Your task to perform on an android device: turn off data saver in the chrome app Image 0: 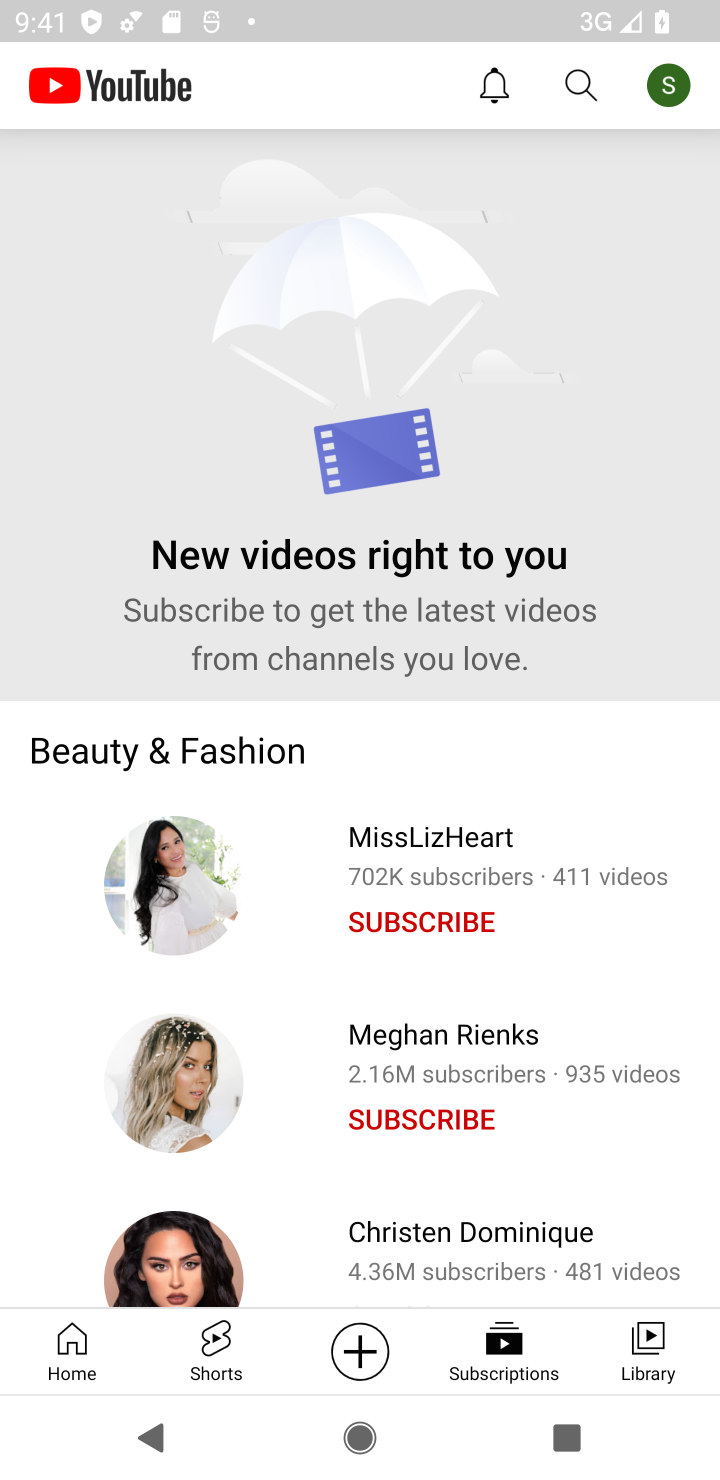
Step 0: press home button
Your task to perform on an android device: turn off data saver in the chrome app Image 1: 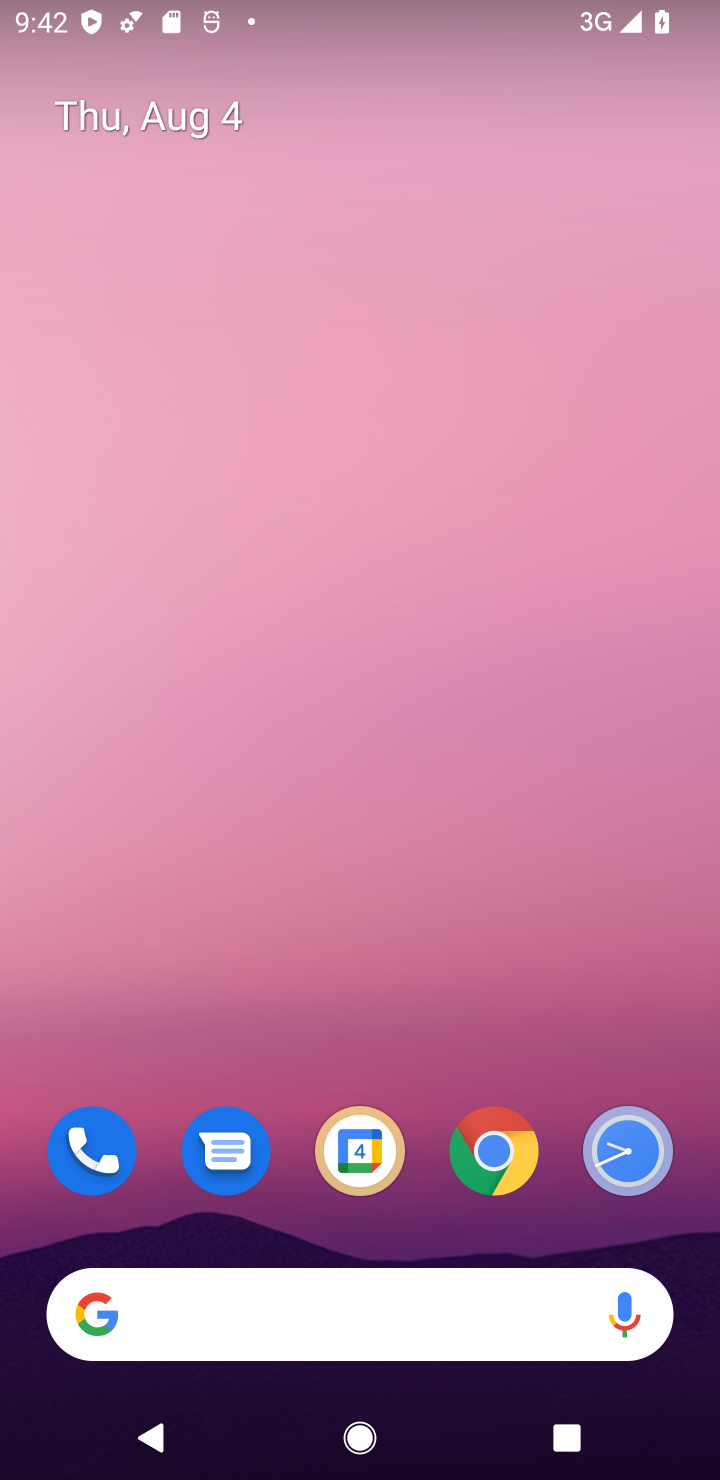
Step 1: click (479, 1138)
Your task to perform on an android device: turn off data saver in the chrome app Image 2: 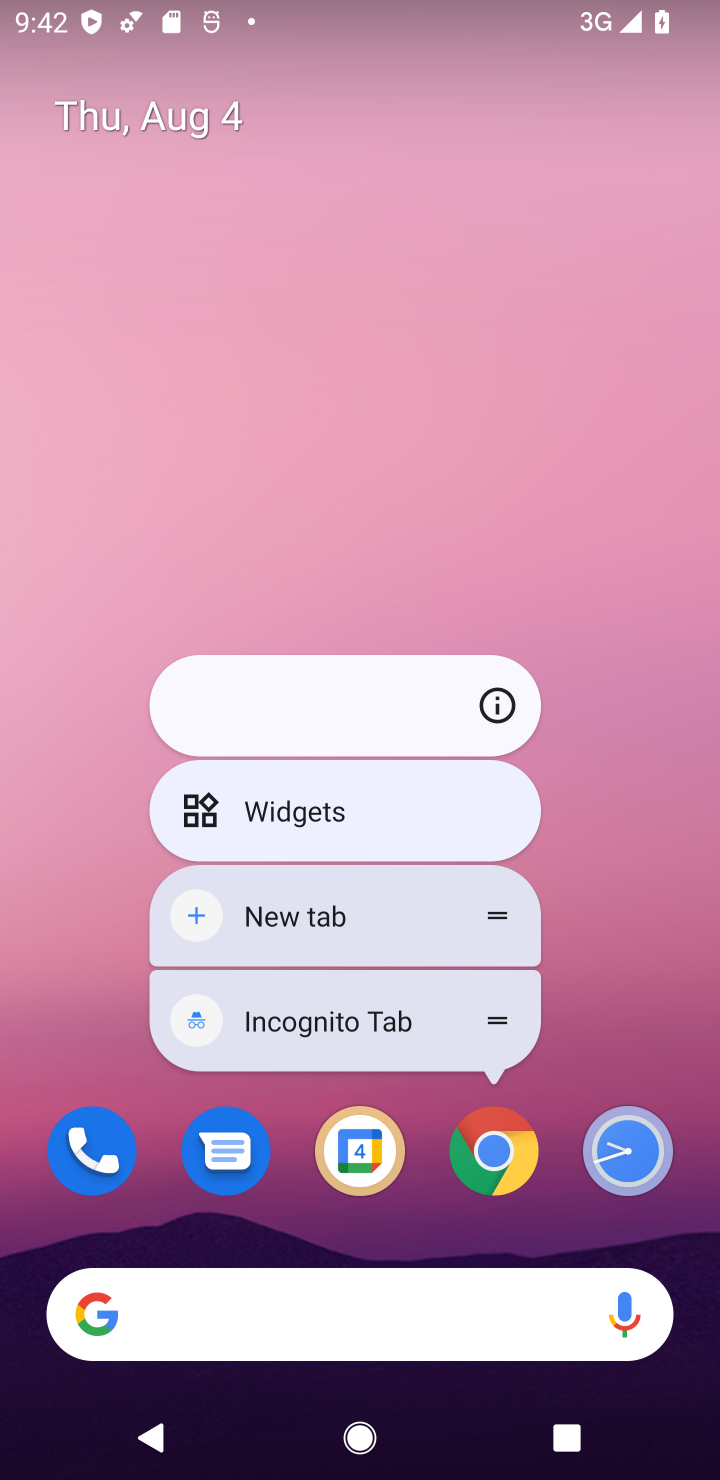
Step 2: click (520, 1146)
Your task to perform on an android device: turn off data saver in the chrome app Image 3: 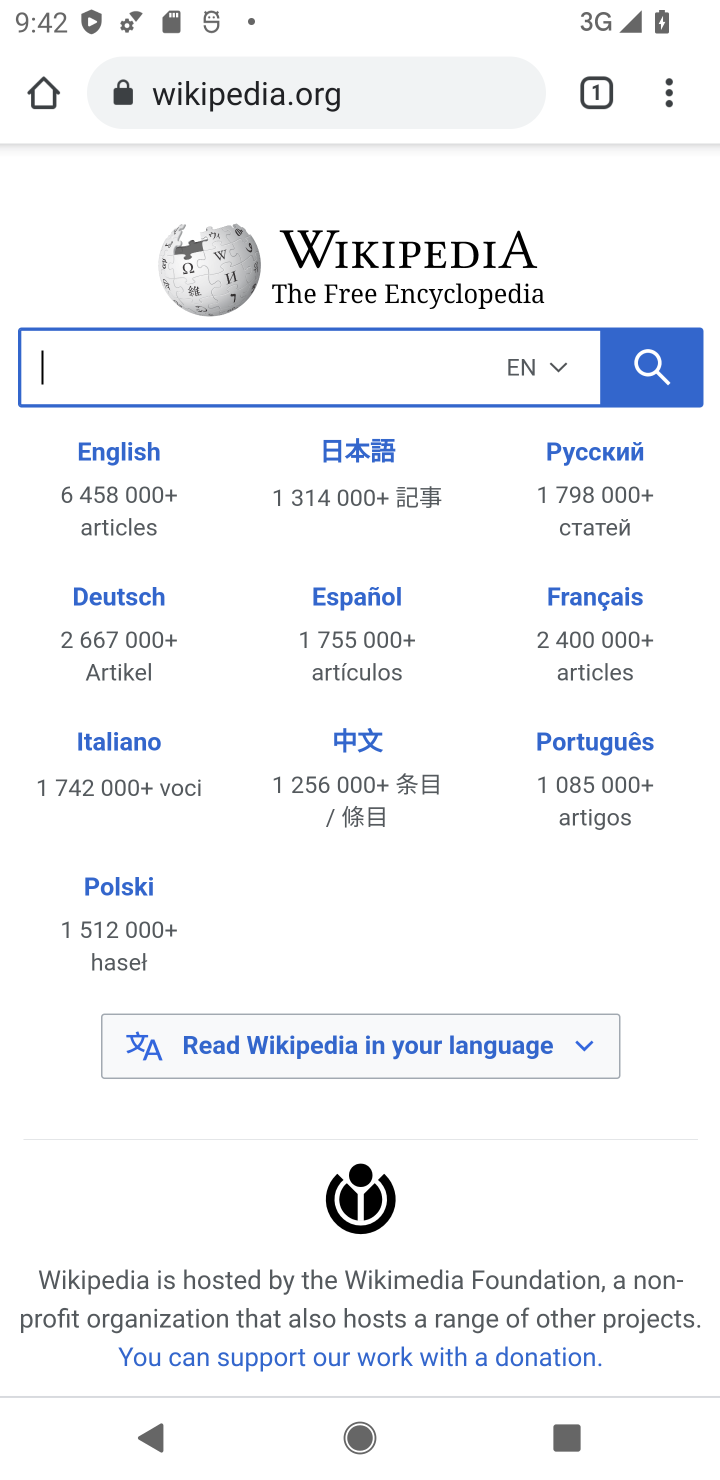
Step 3: click (655, 69)
Your task to perform on an android device: turn off data saver in the chrome app Image 4: 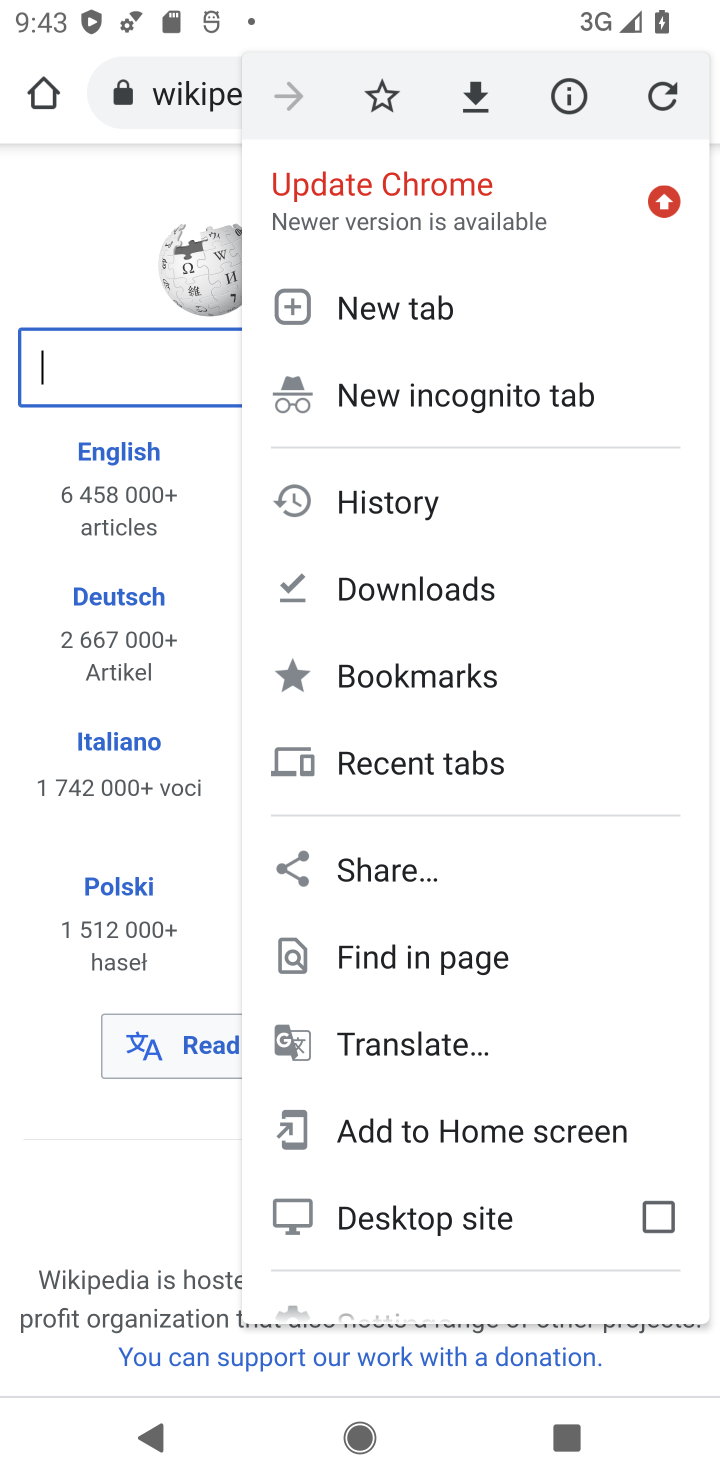
Step 4: click (24, 609)
Your task to perform on an android device: turn off data saver in the chrome app Image 5: 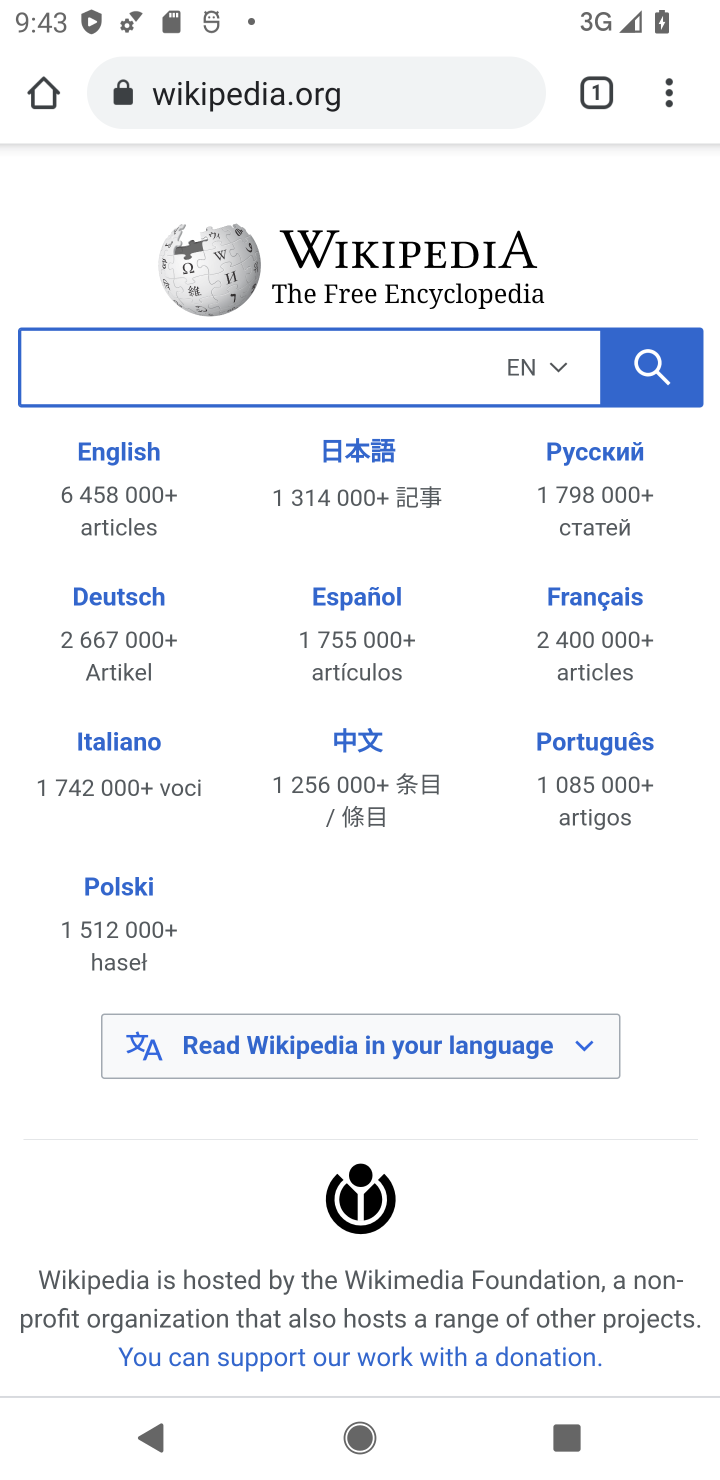
Step 5: click (665, 120)
Your task to perform on an android device: turn off data saver in the chrome app Image 6: 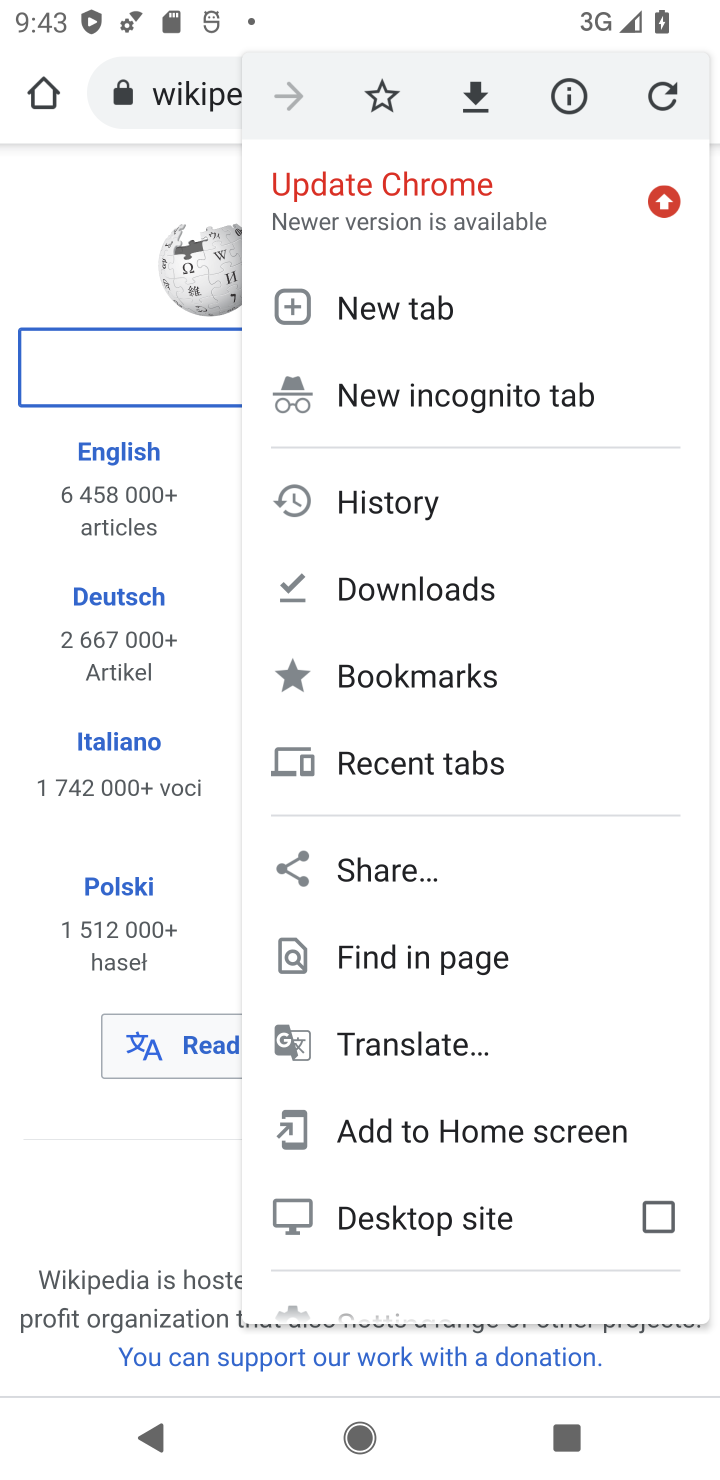
Step 6: drag from (479, 1137) to (514, 688)
Your task to perform on an android device: turn off data saver in the chrome app Image 7: 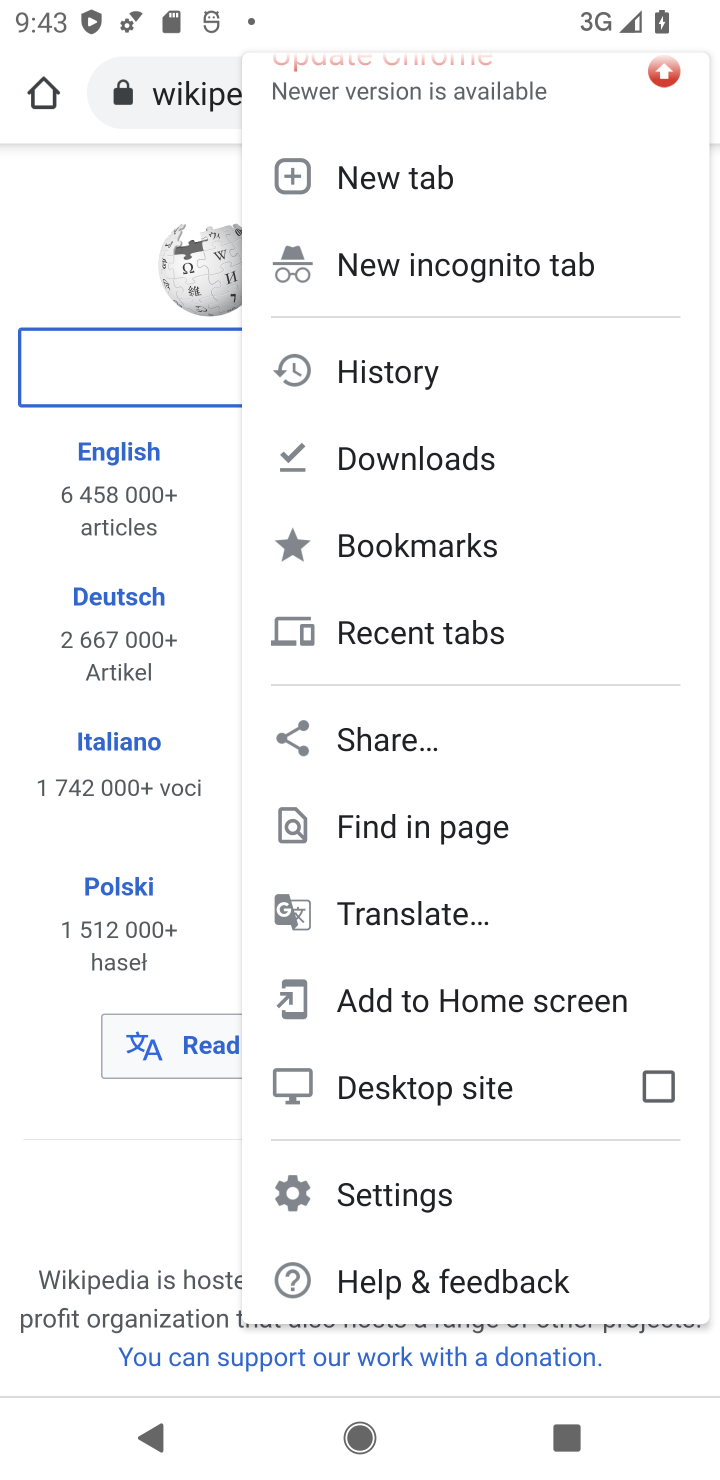
Step 7: click (447, 1178)
Your task to perform on an android device: turn off data saver in the chrome app Image 8: 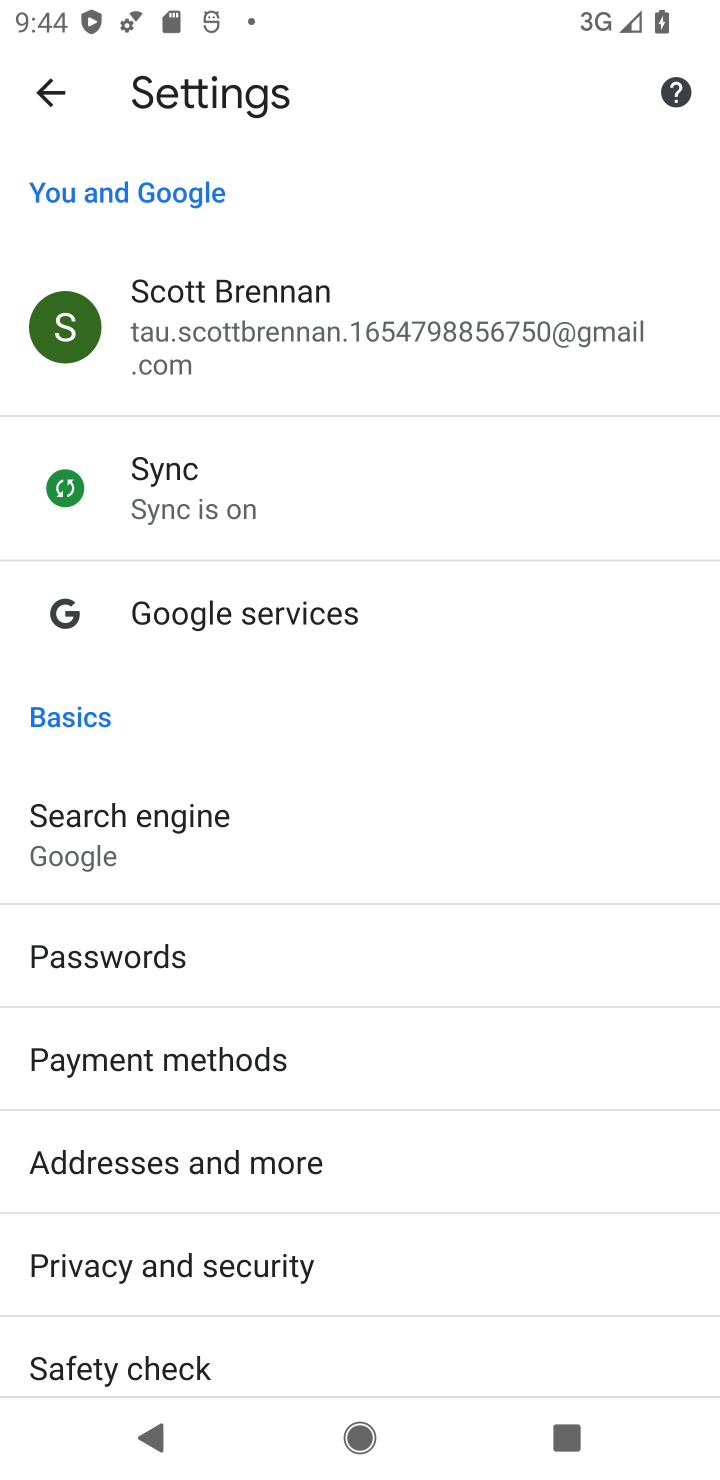
Step 8: task complete